Your task to perform on an android device: Go to battery settings Image 0: 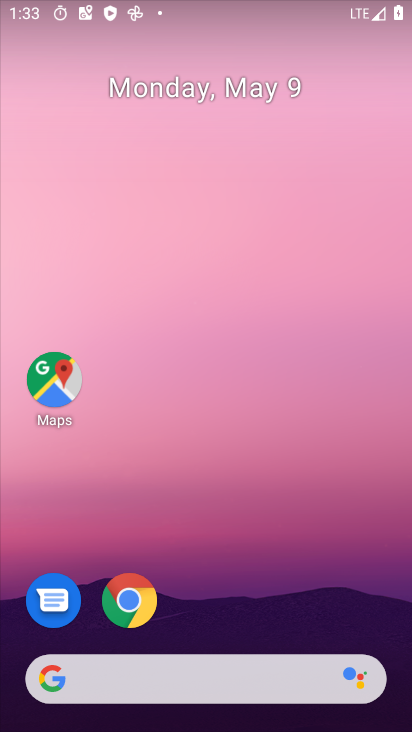
Step 0: drag from (266, 580) to (207, 165)
Your task to perform on an android device: Go to battery settings Image 1: 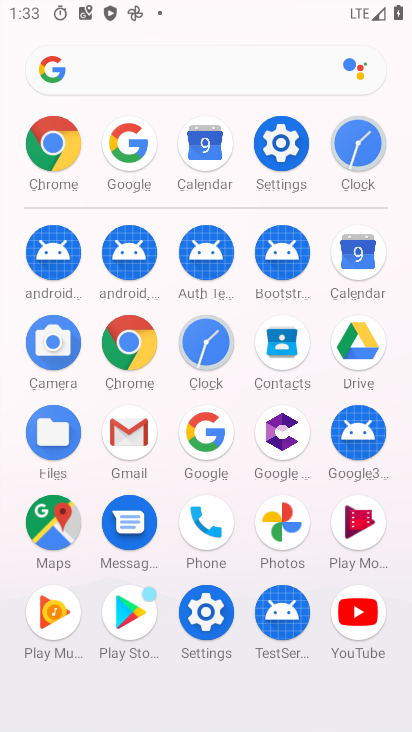
Step 1: click (293, 146)
Your task to perform on an android device: Go to battery settings Image 2: 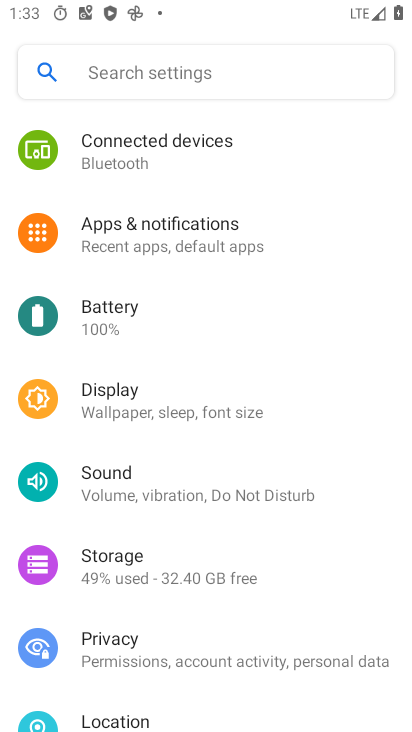
Step 2: click (380, 315)
Your task to perform on an android device: Go to battery settings Image 3: 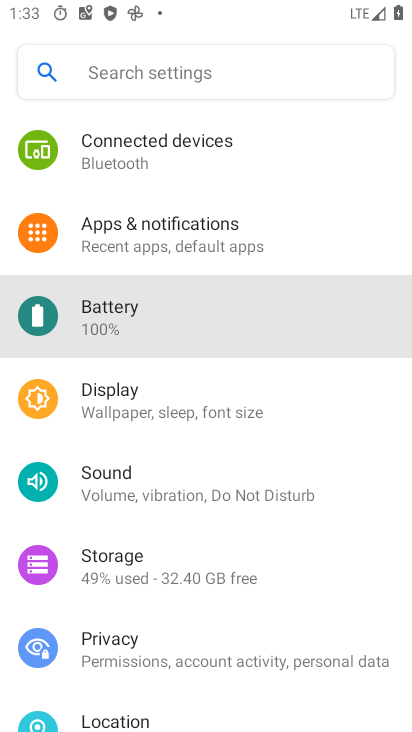
Step 3: click (149, 405)
Your task to perform on an android device: Go to battery settings Image 4: 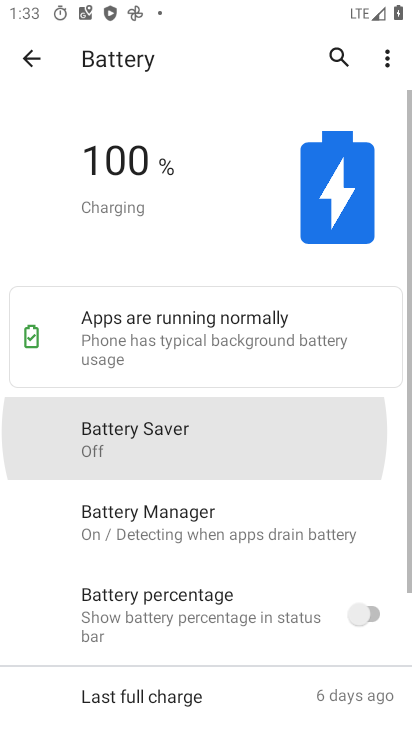
Step 4: click (149, 329)
Your task to perform on an android device: Go to battery settings Image 5: 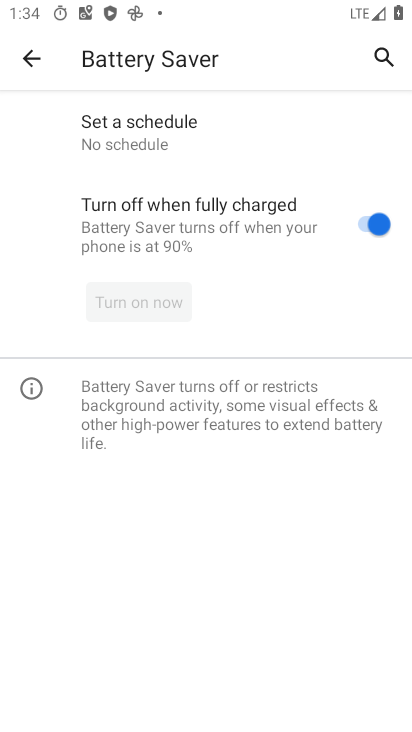
Step 5: task complete